Your task to perform on an android device: Do I have any events today? Image 0: 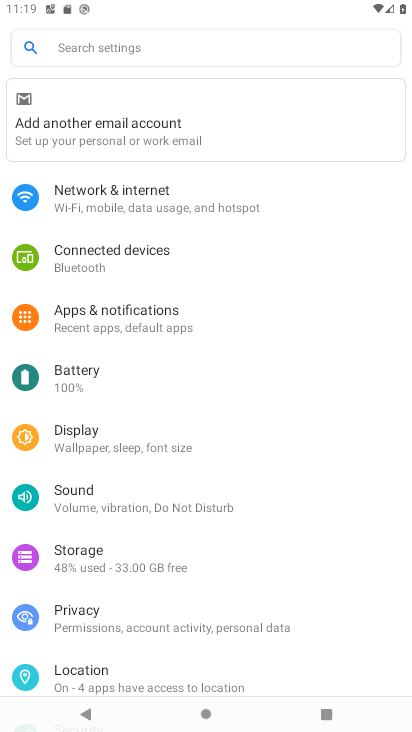
Step 0: press home button
Your task to perform on an android device: Do I have any events today? Image 1: 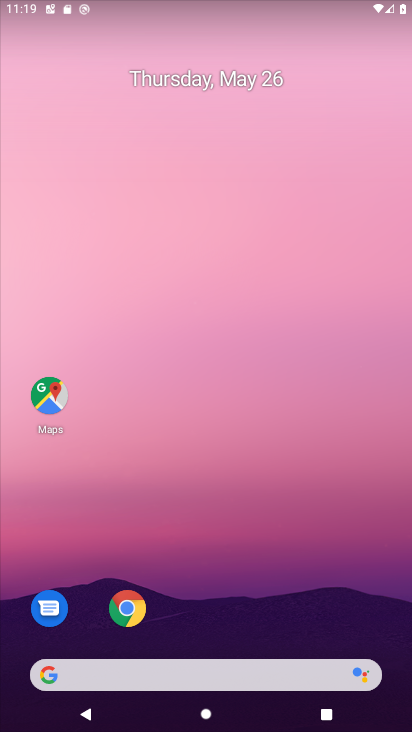
Step 1: drag from (400, 695) to (379, 352)
Your task to perform on an android device: Do I have any events today? Image 2: 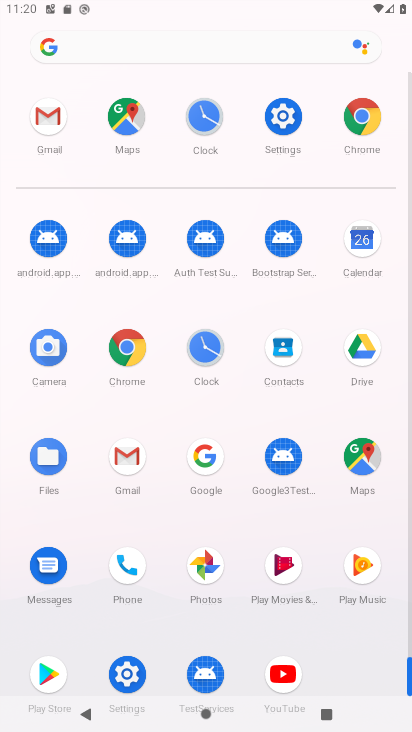
Step 2: click (359, 243)
Your task to perform on an android device: Do I have any events today? Image 3: 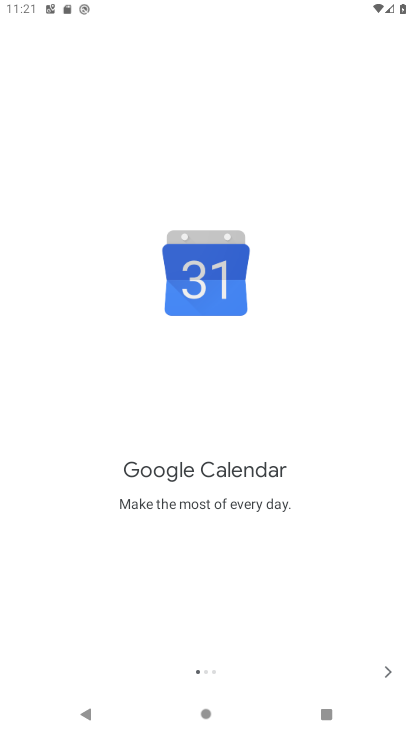
Step 3: click (391, 668)
Your task to perform on an android device: Do I have any events today? Image 4: 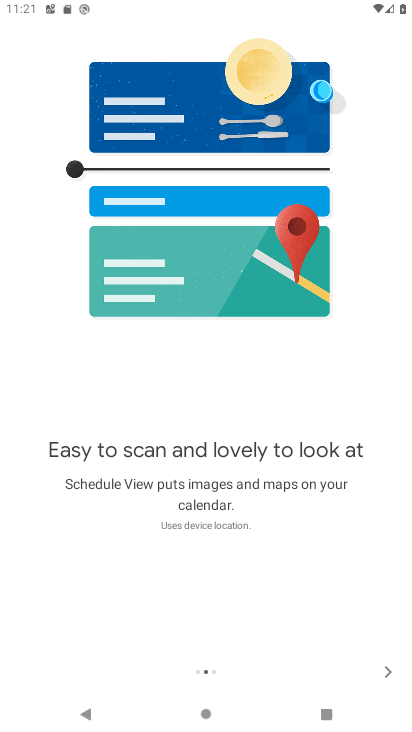
Step 4: click (391, 668)
Your task to perform on an android device: Do I have any events today? Image 5: 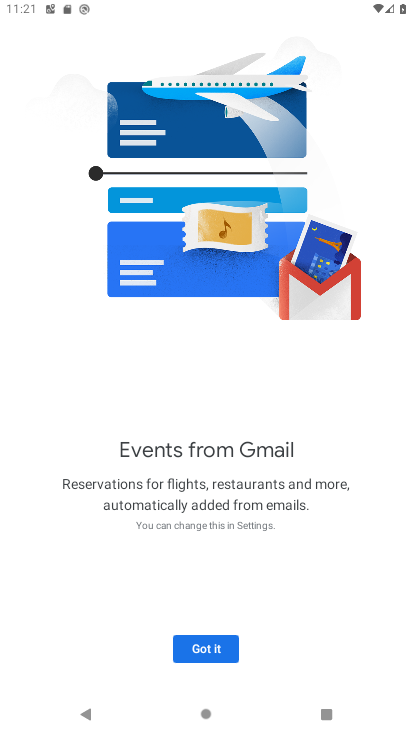
Step 5: click (209, 640)
Your task to perform on an android device: Do I have any events today? Image 6: 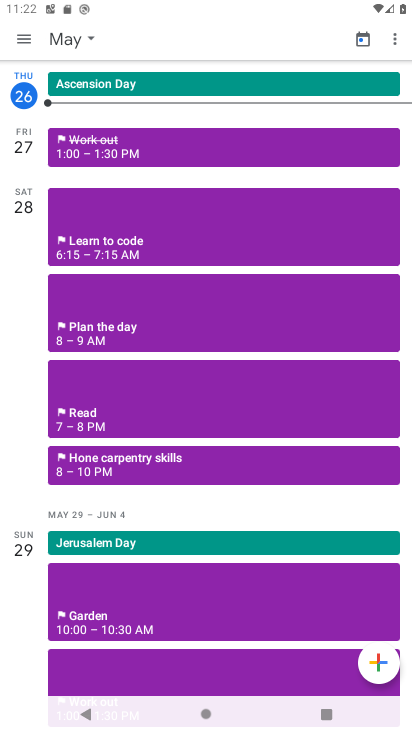
Step 6: click (13, 36)
Your task to perform on an android device: Do I have any events today? Image 7: 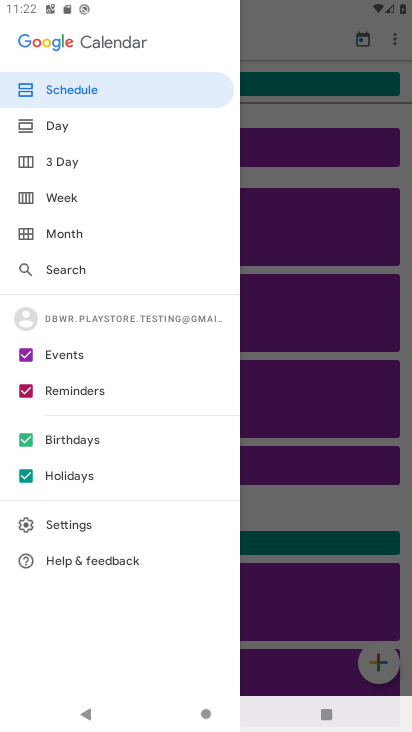
Step 7: click (52, 125)
Your task to perform on an android device: Do I have any events today? Image 8: 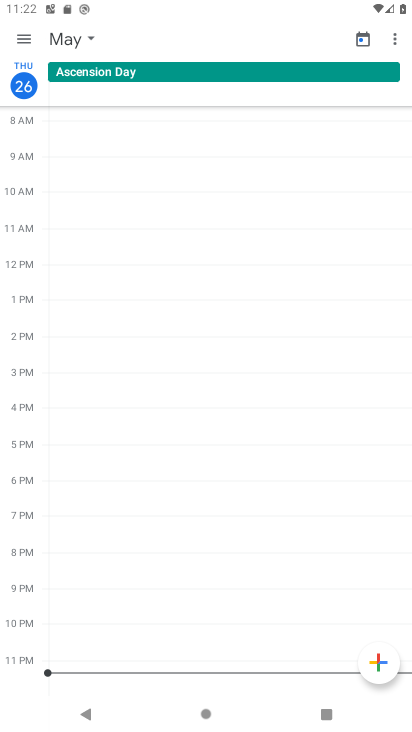
Step 8: task complete